Your task to perform on an android device: turn off location history Image 0: 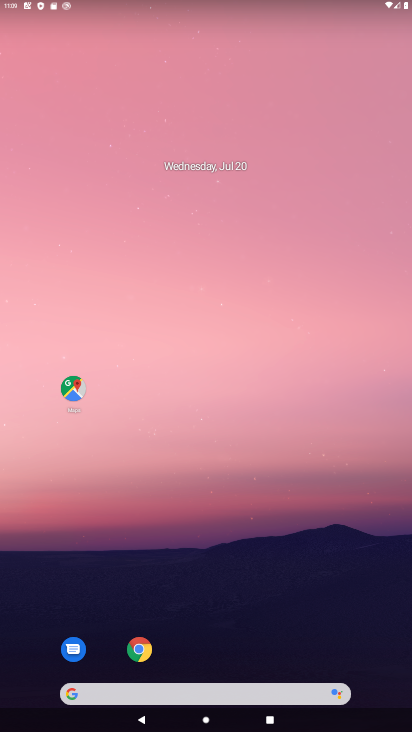
Step 0: drag from (271, 643) to (267, 169)
Your task to perform on an android device: turn off location history Image 1: 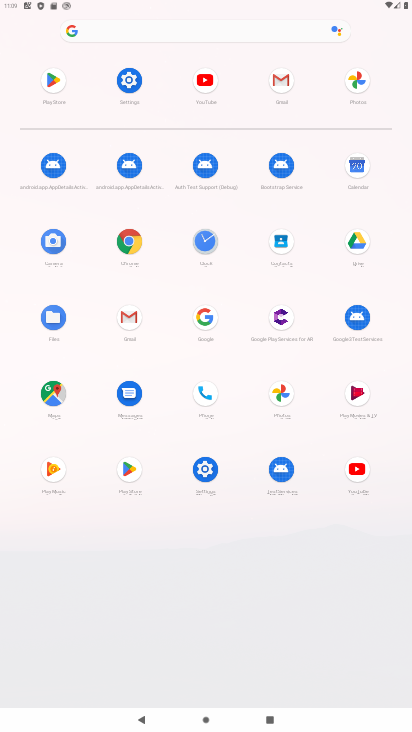
Step 1: click (121, 90)
Your task to perform on an android device: turn off location history Image 2: 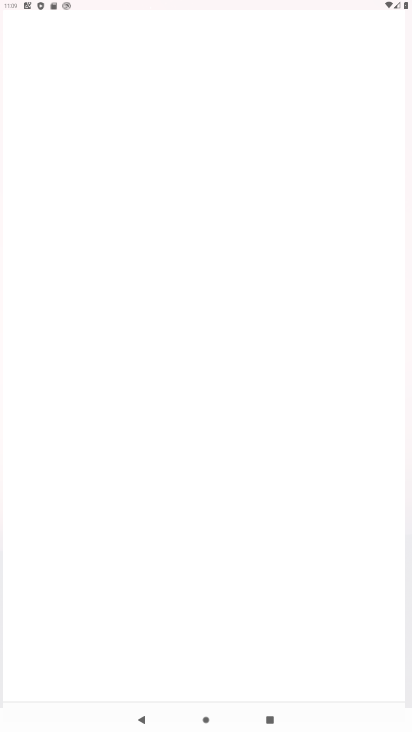
Step 2: task complete